Your task to perform on an android device: When is my next meeting? Image 0: 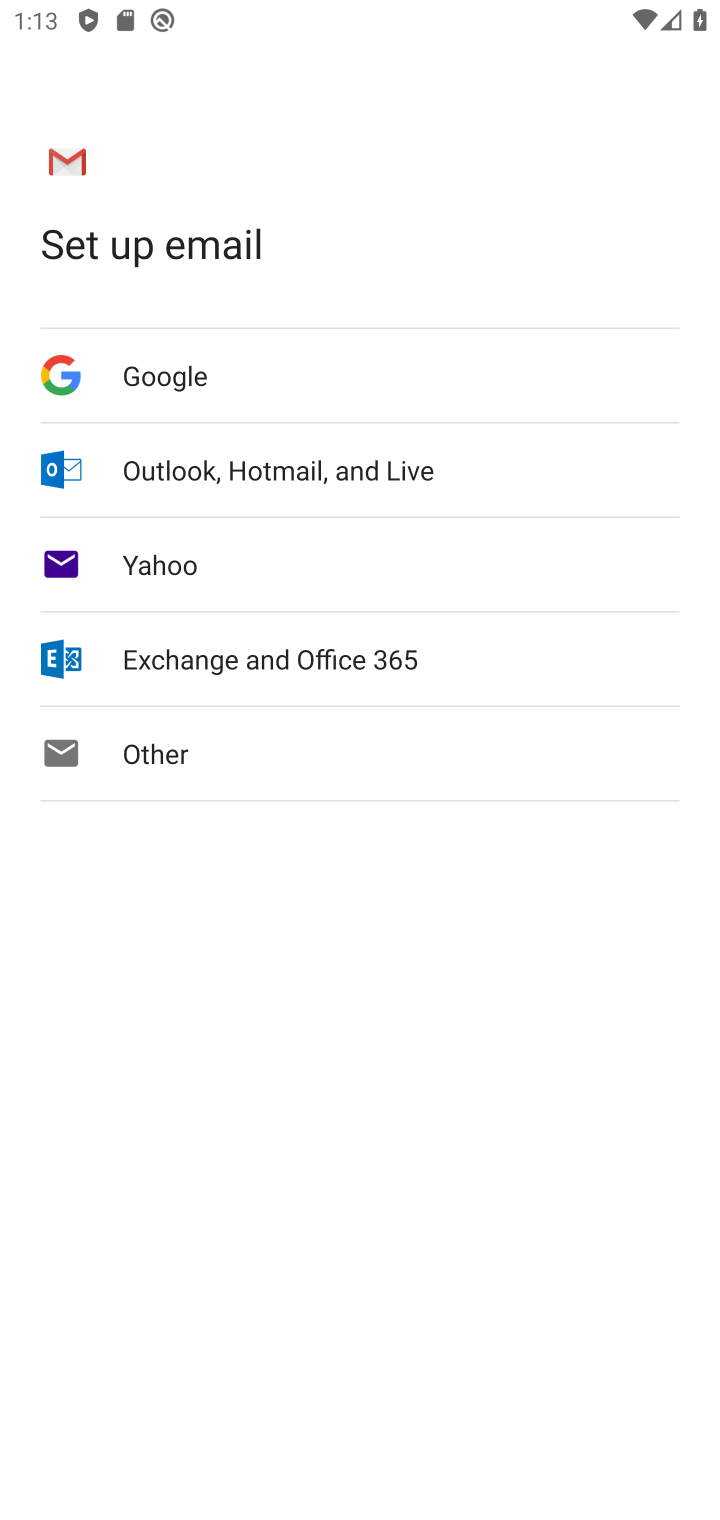
Step 0: press home button
Your task to perform on an android device: When is my next meeting? Image 1: 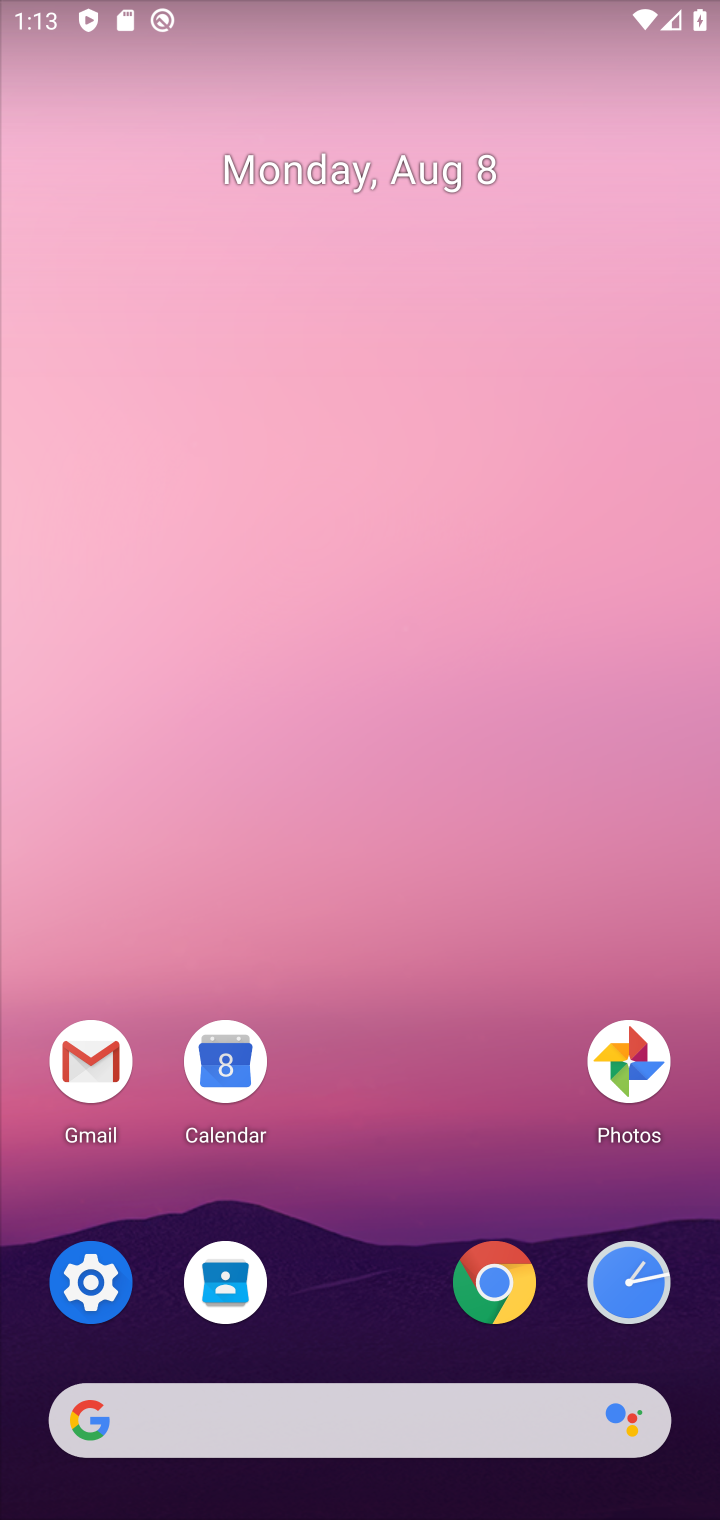
Step 1: click (223, 1067)
Your task to perform on an android device: When is my next meeting? Image 2: 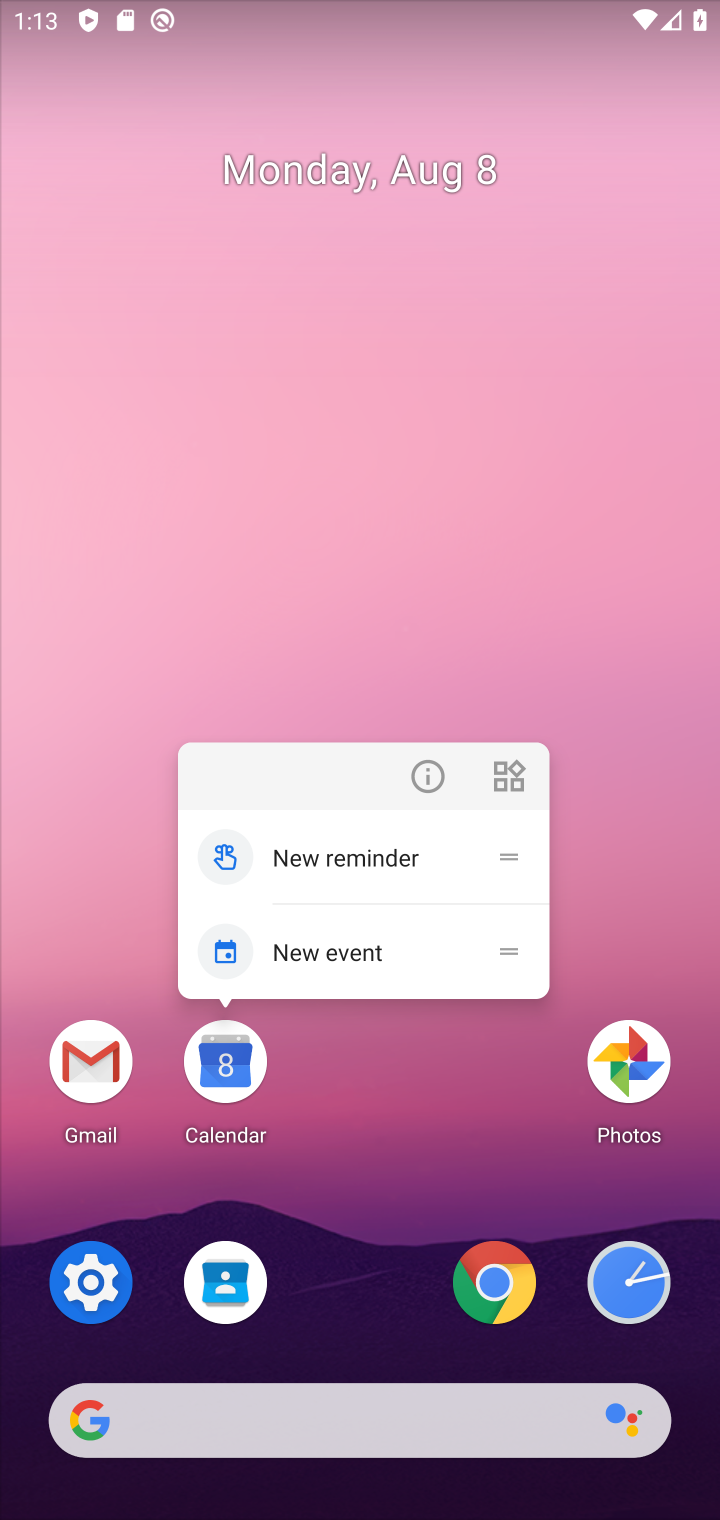
Step 2: click (216, 1063)
Your task to perform on an android device: When is my next meeting? Image 3: 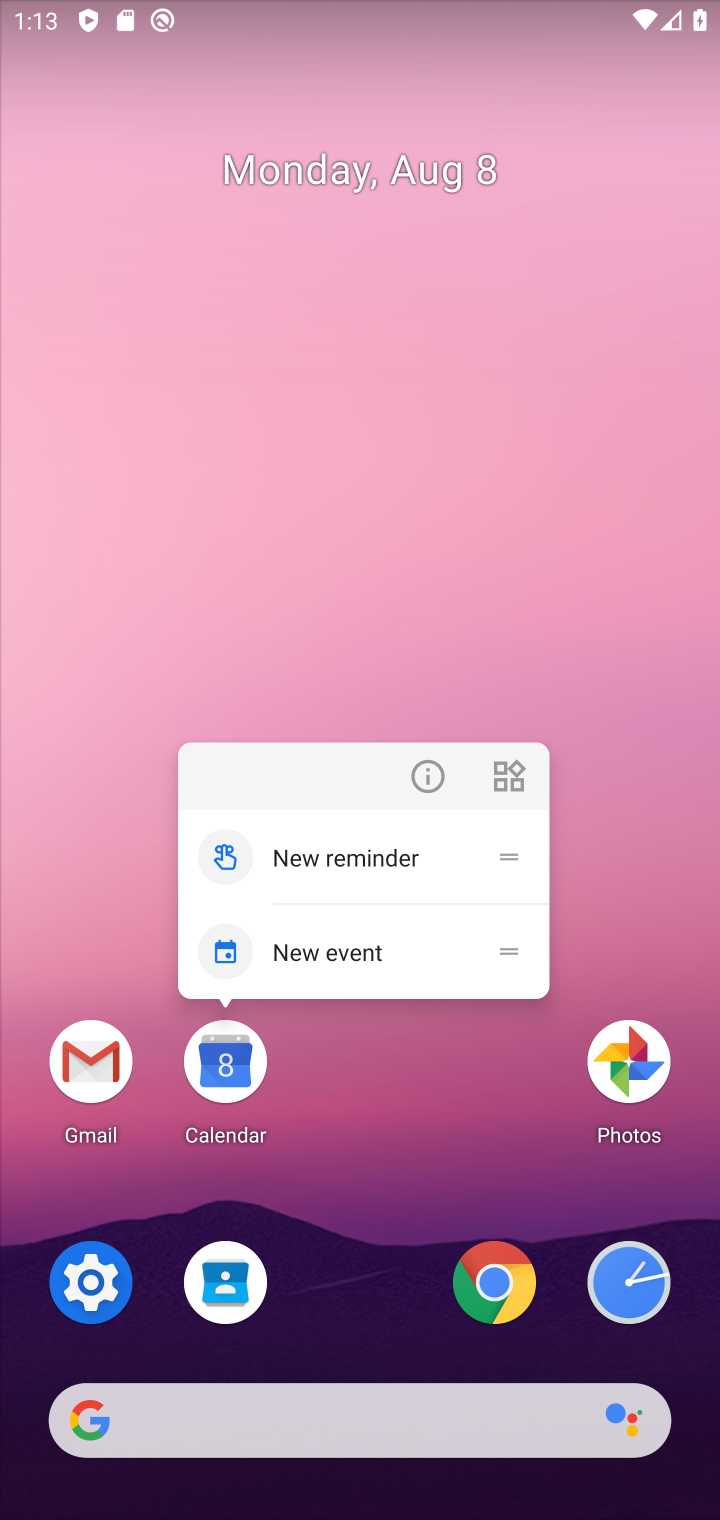
Step 3: click (221, 1057)
Your task to perform on an android device: When is my next meeting? Image 4: 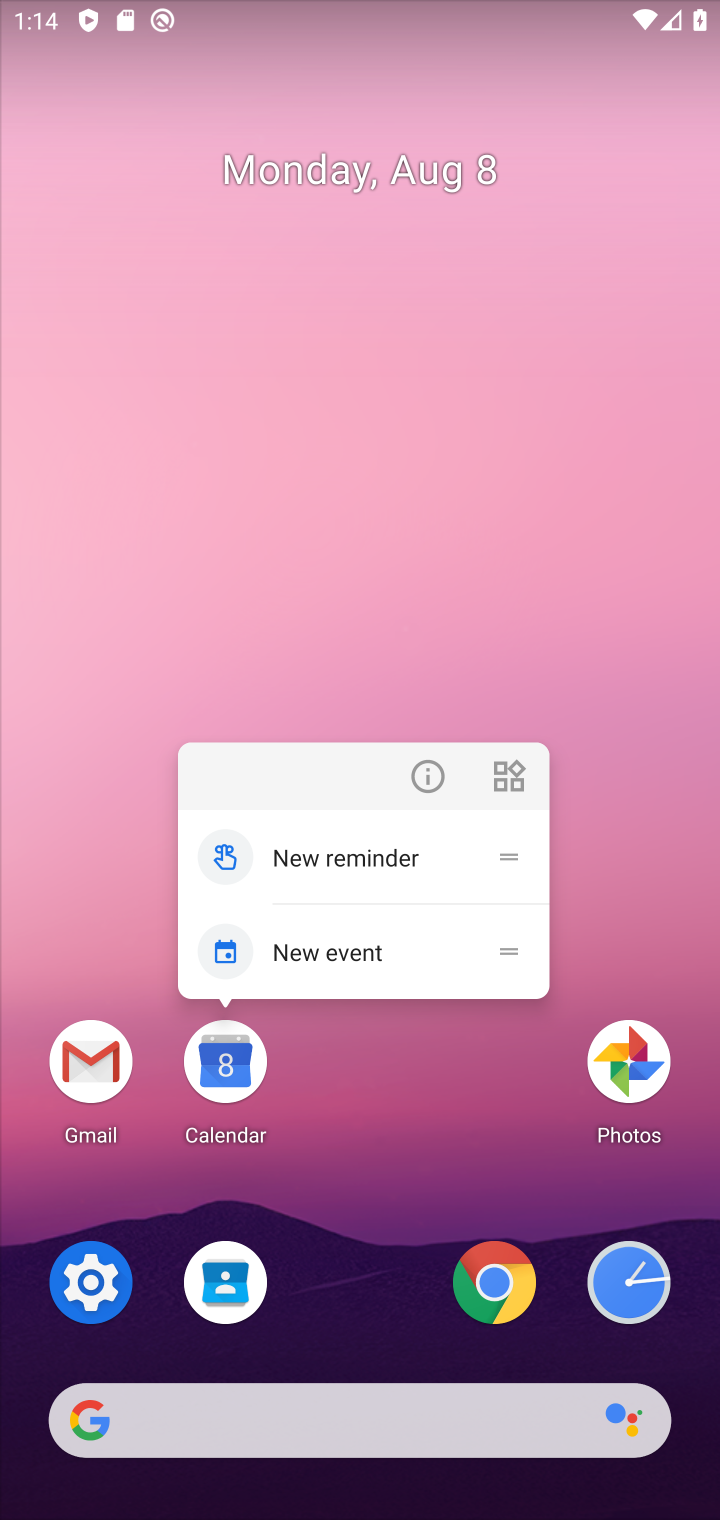
Step 4: click (335, 1099)
Your task to perform on an android device: When is my next meeting? Image 5: 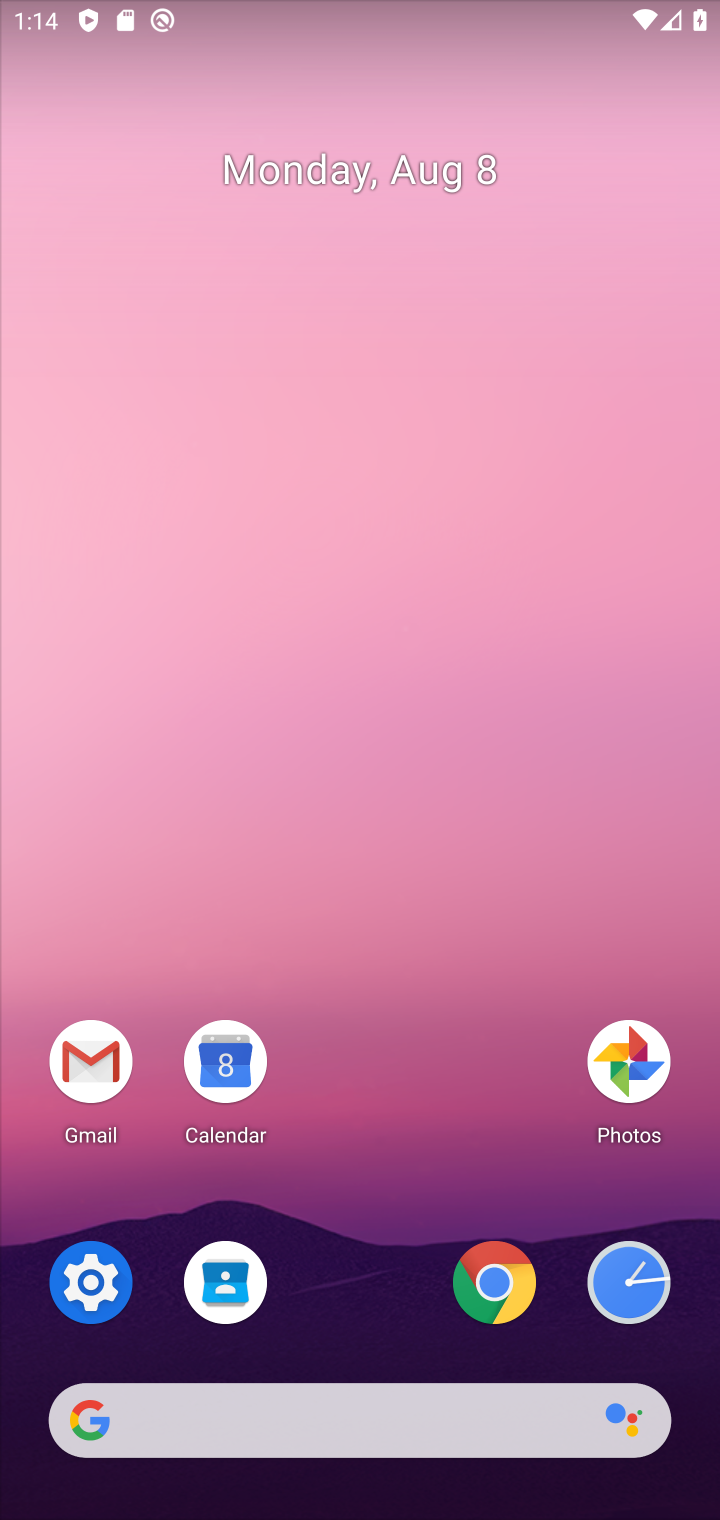
Step 5: click (221, 1052)
Your task to perform on an android device: When is my next meeting? Image 6: 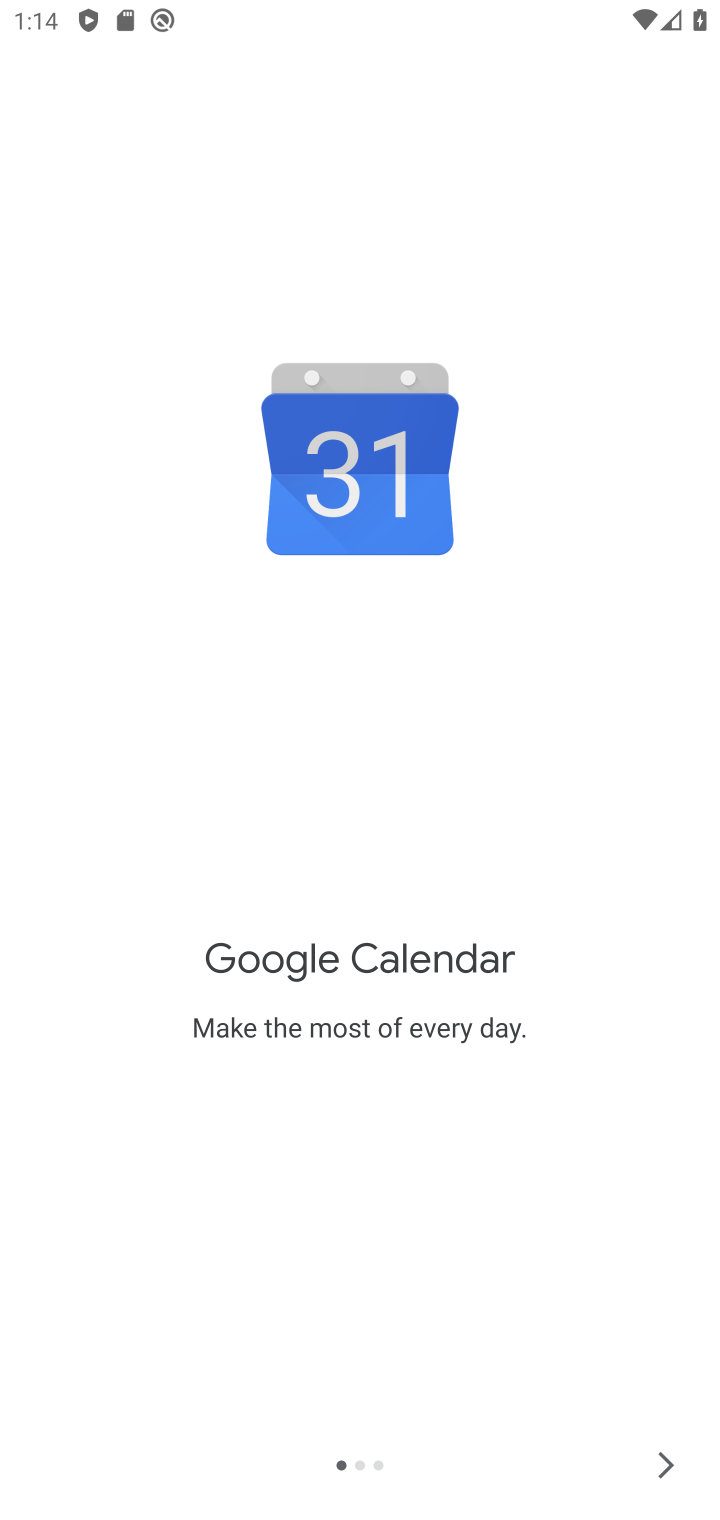
Step 6: click (660, 1486)
Your task to perform on an android device: When is my next meeting? Image 7: 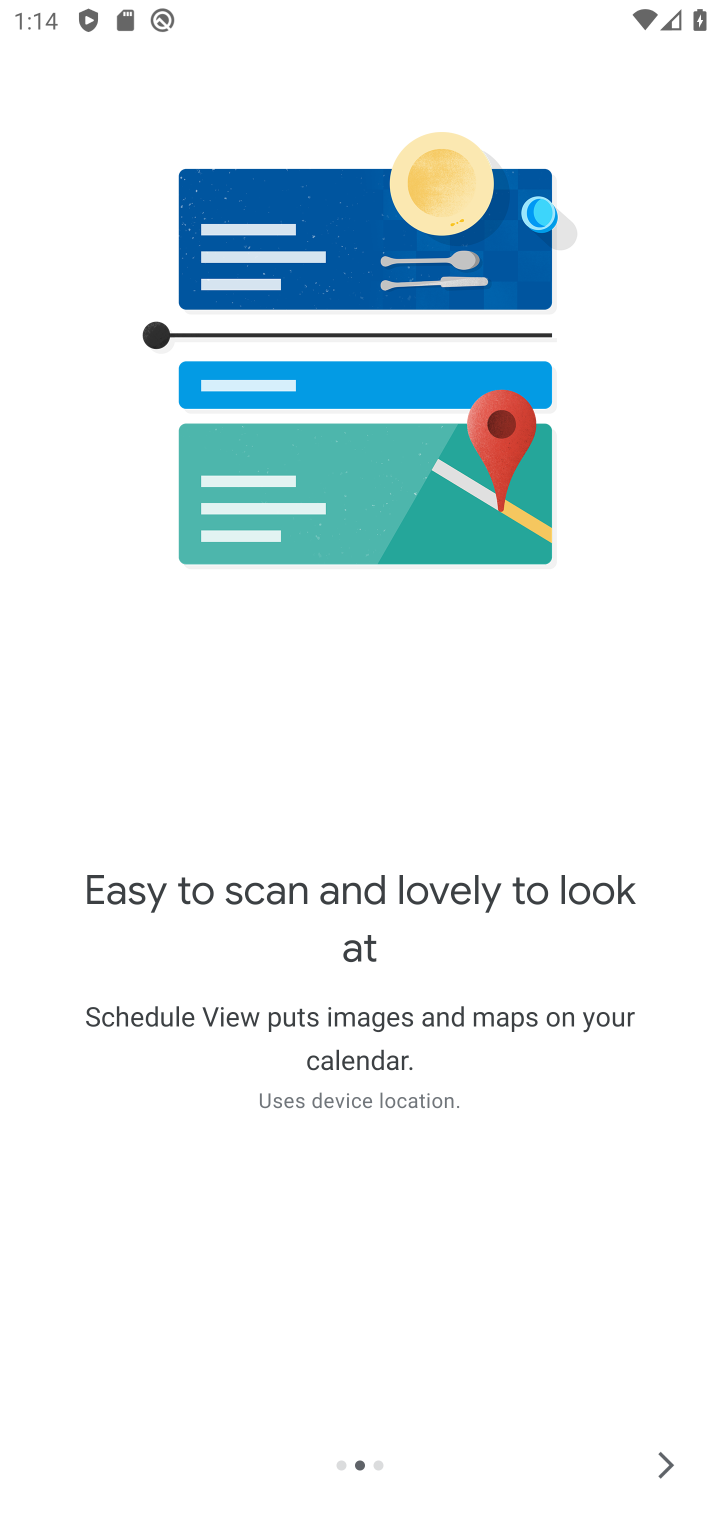
Step 7: click (660, 1481)
Your task to perform on an android device: When is my next meeting? Image 8: 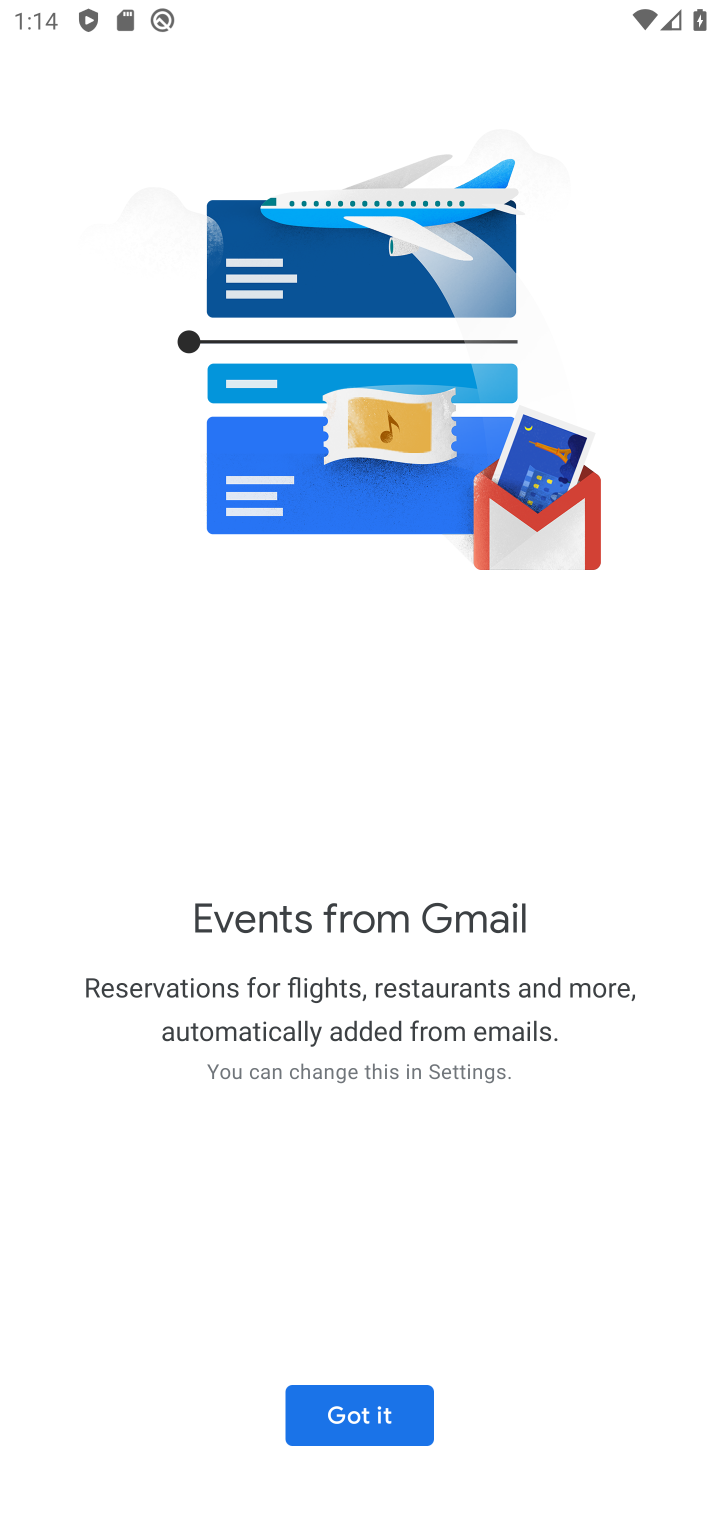
Step 8: click (382, 1419)
Your task to perform on an android device: When is my next meeting? Image 9: 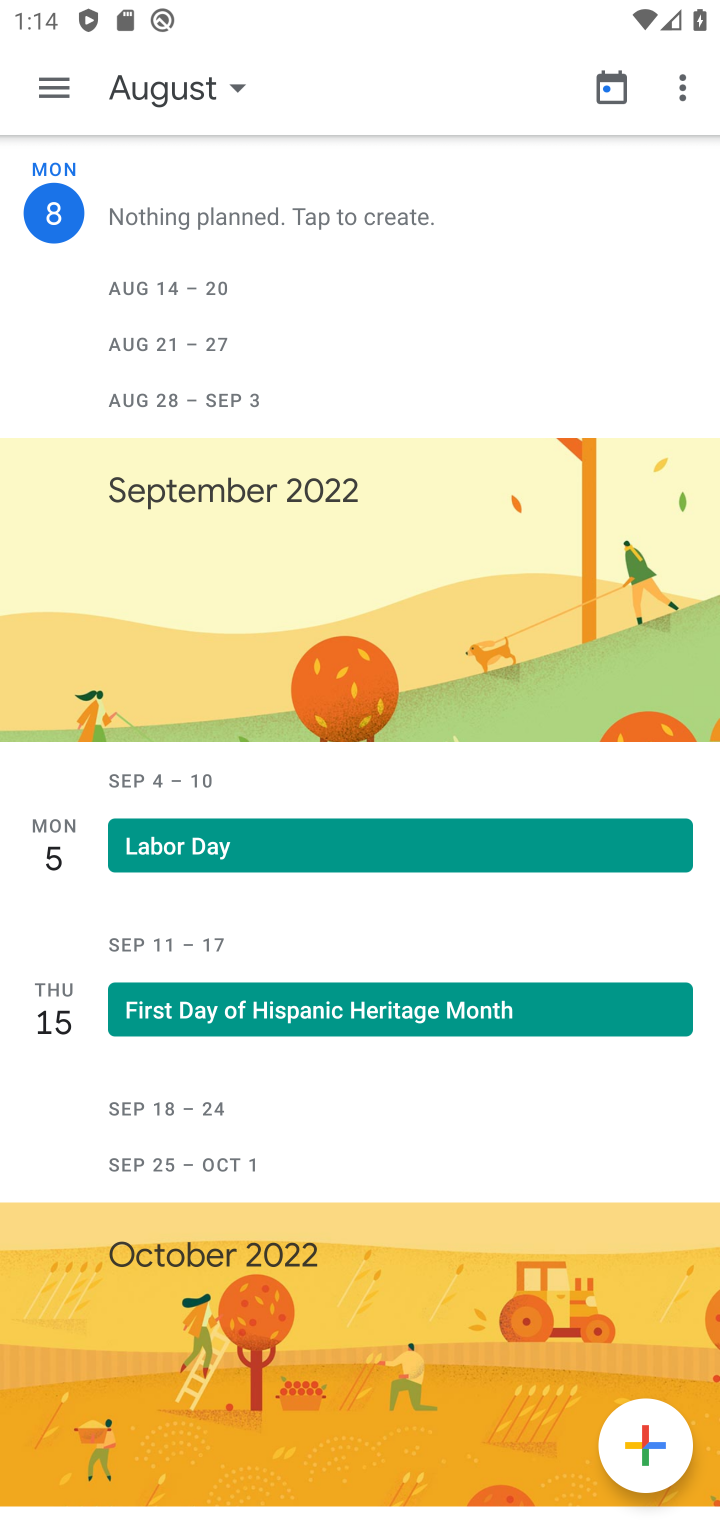
Step 9: click (58, 89)
Your task to perform on an android device: When is my next meeting? Image 10: 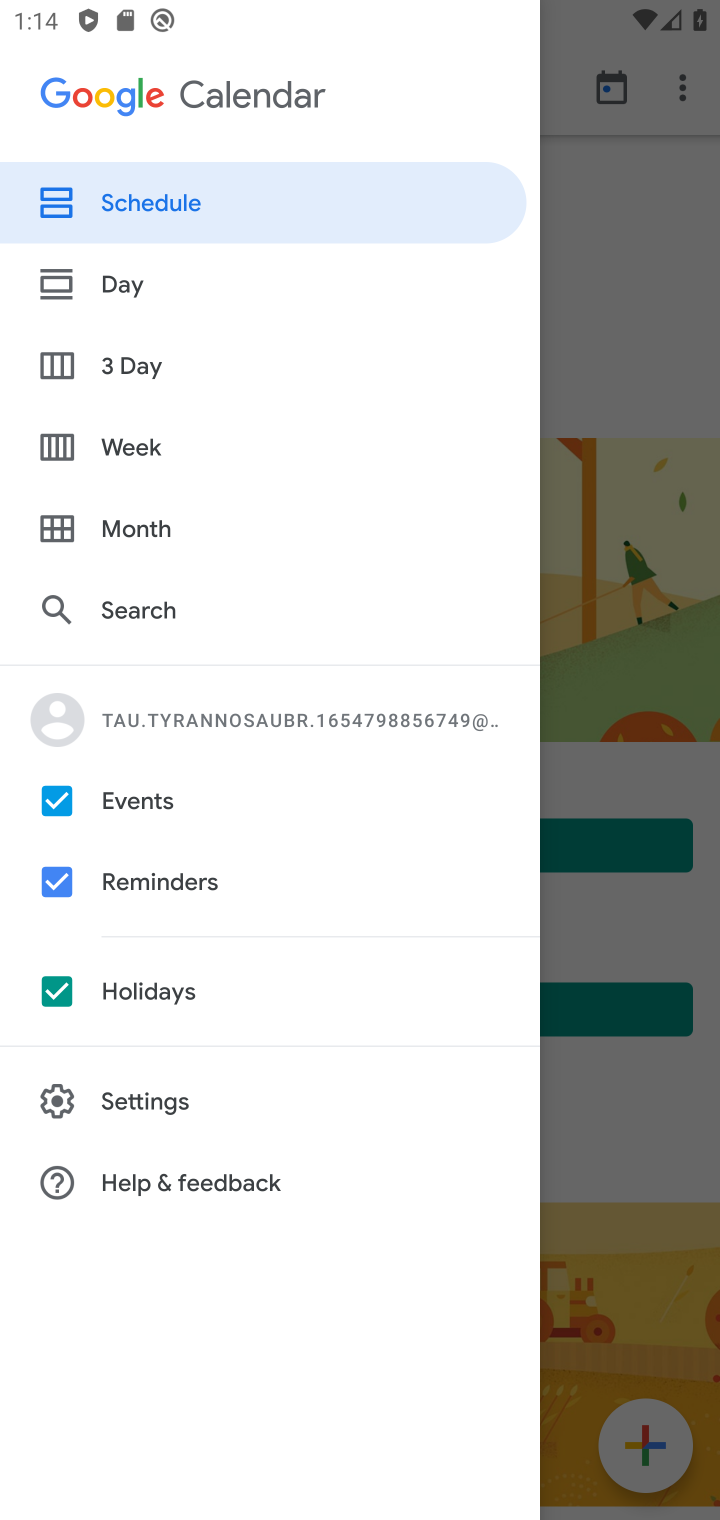
Step 10: click (121, 280)
Your task to perform on an android device: When is my next meeting? Image 11: 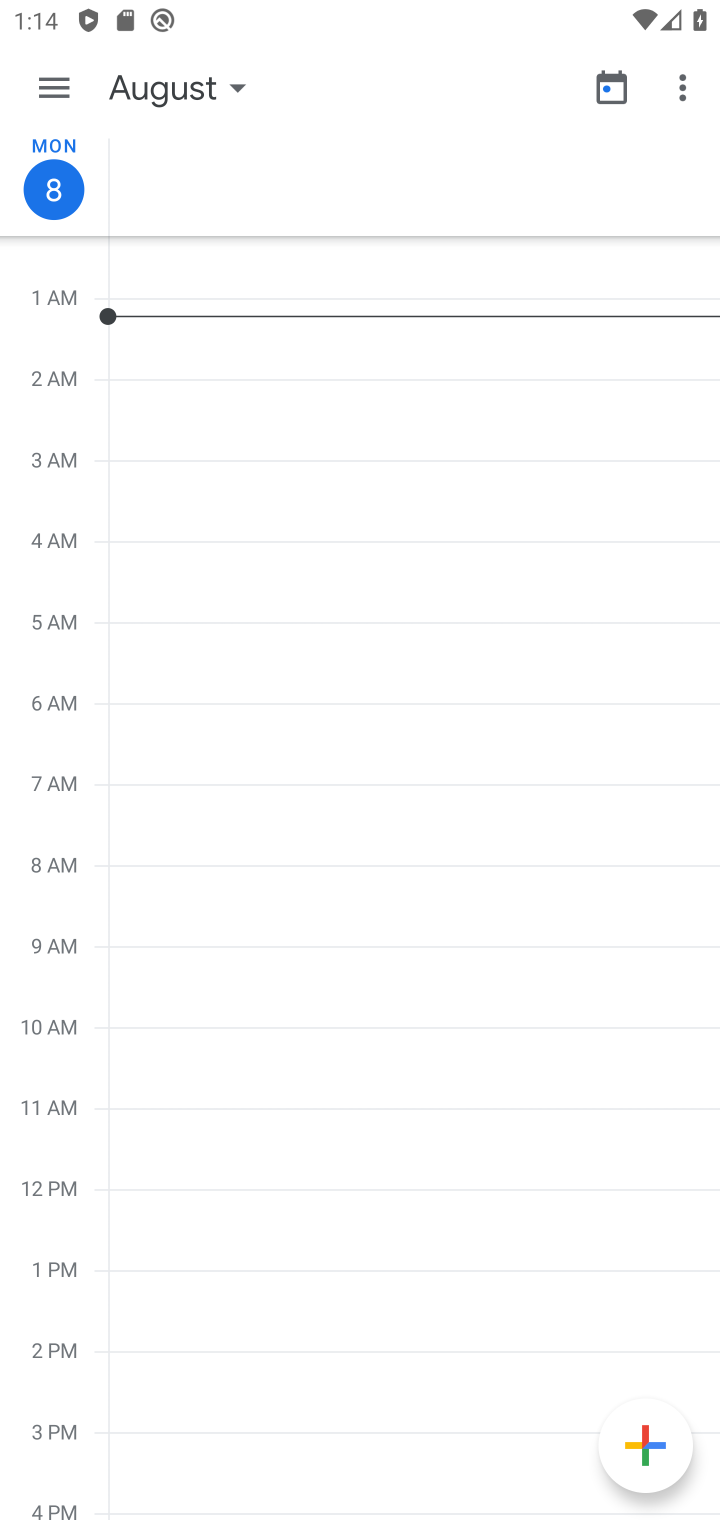
Step 11: task complete